Your task to perform on an android device: add a label to a message in the gmail app Image 0: 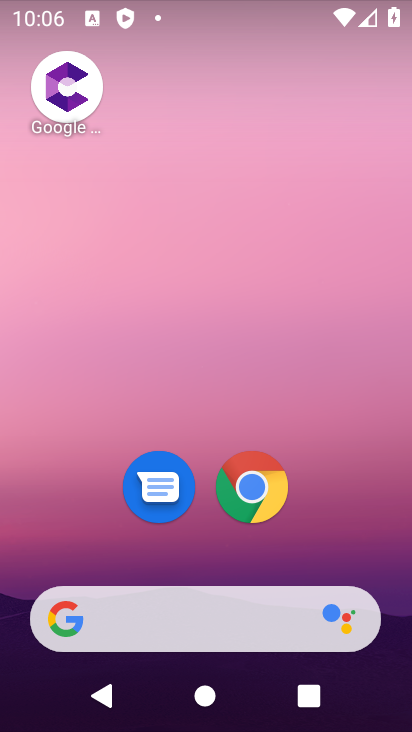
Step 0: task impossible